Your task to perform on an android device: Open Chrome and go to the settings page Image 0: 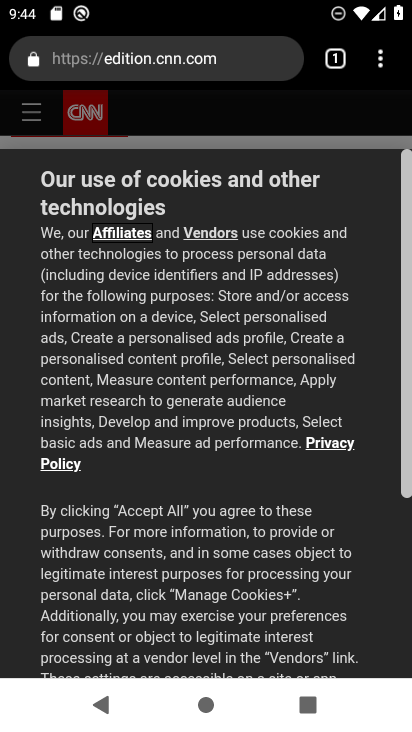
Step 0: click (385, 55)
Your task to perform on an android device: Open Chrome and go to the settings page Image 1: 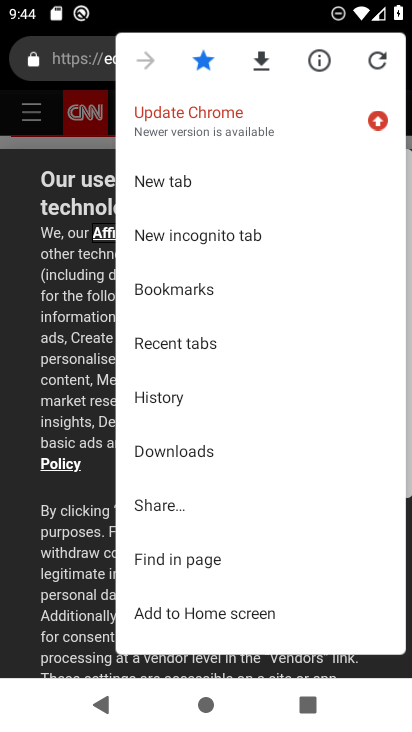
Step 1: drag from (219, 627) to (264, 288)
Your task to perform on an android device: Open Chrome and go to the settings page Image 2: 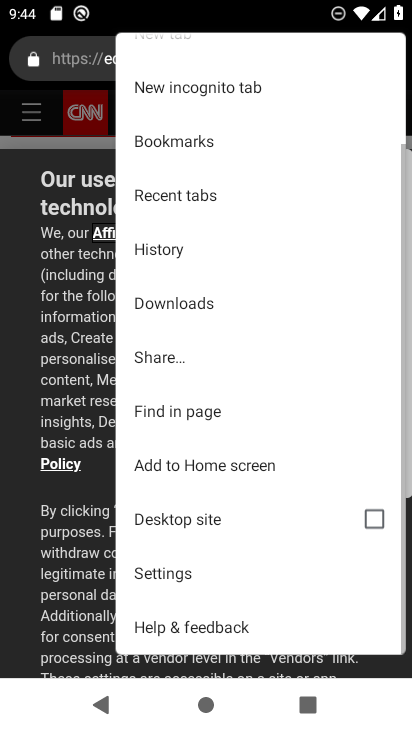
Step 2: click (177, 568)
Your task to perform on an android device: Open Chrome and go to the settings page Image 3: 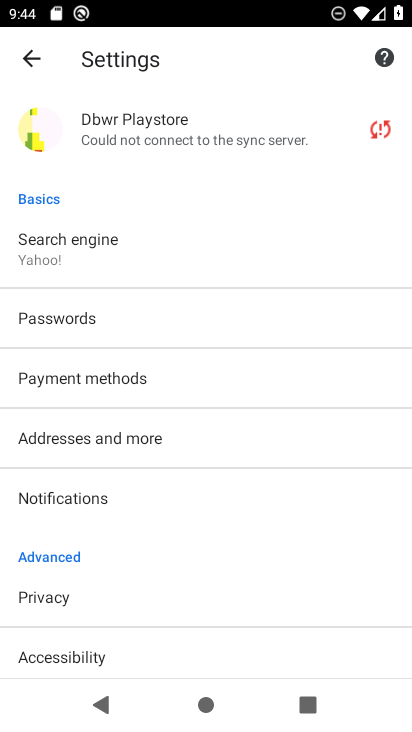
Step 3: task complete